Your task to perform on an android device: Go to internet settings Image 0: 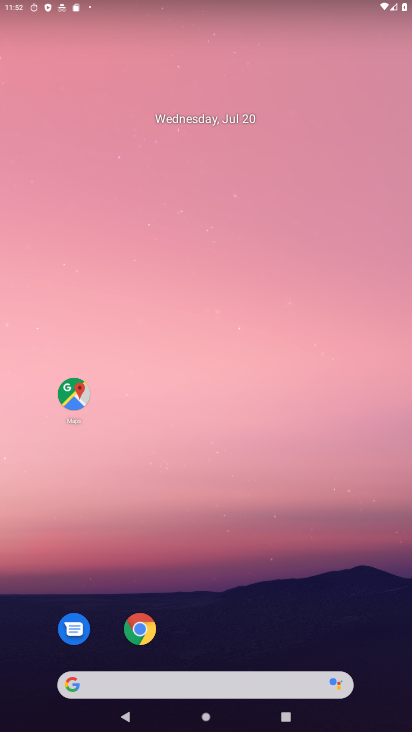
Step 0: drag from (270, 692) to (394, 5)
Your task to perform on an android device: Go to internet settings Image 1: 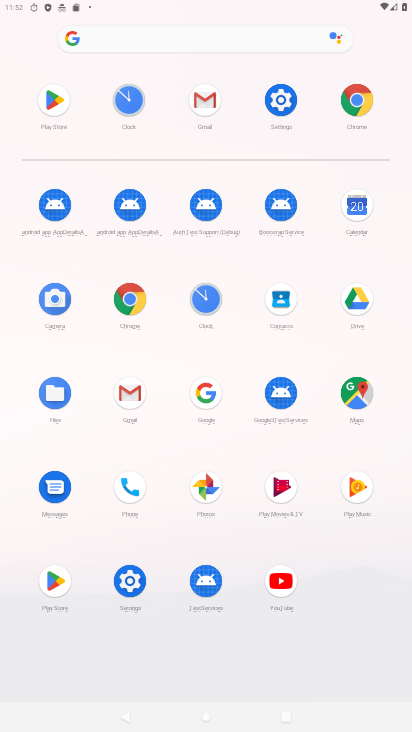
Step 1: click (281, 94)
Your task to perform on an android device: Go to internet settings Image 2: 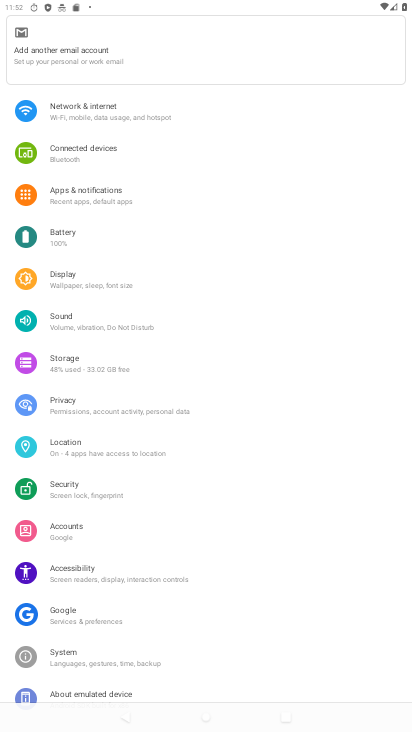
Step 2: click (109, 109)
Your task to perform on an android device: Go to internet settings Image 3: 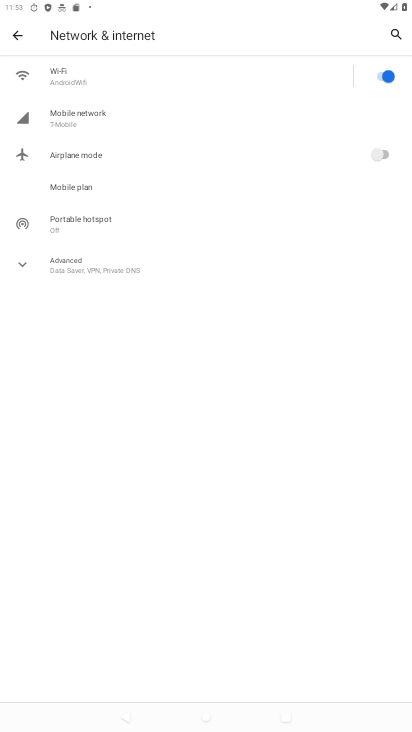
Step 3: task complete